Your task to perform on an android device: Search for sushi restaurants on Maps Image 0: 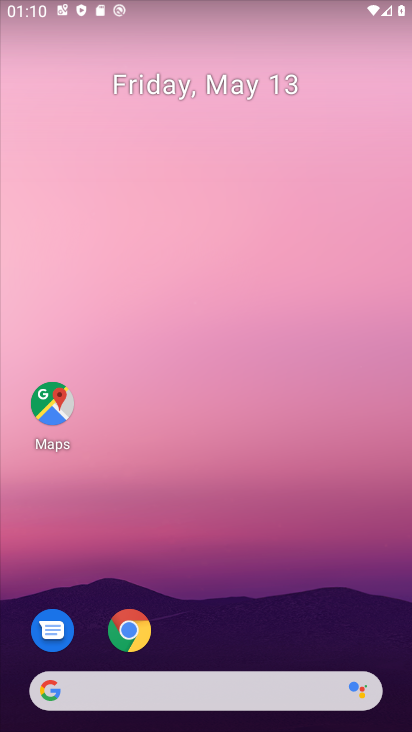
Step 0: drag from (230, 706) to (145, 254)
Your task to perform on an android device: Search for sushi restaurants on Maps Image 1: 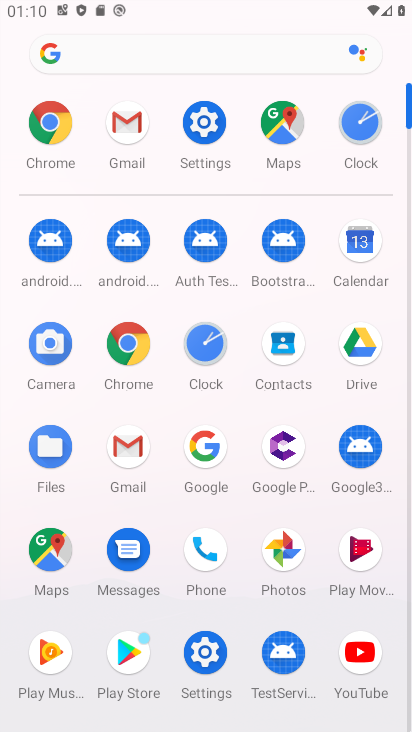
Step 1: click (267, 140)
Your task to perform on an android device: Search for sushi restaurants on Maps Image 2: 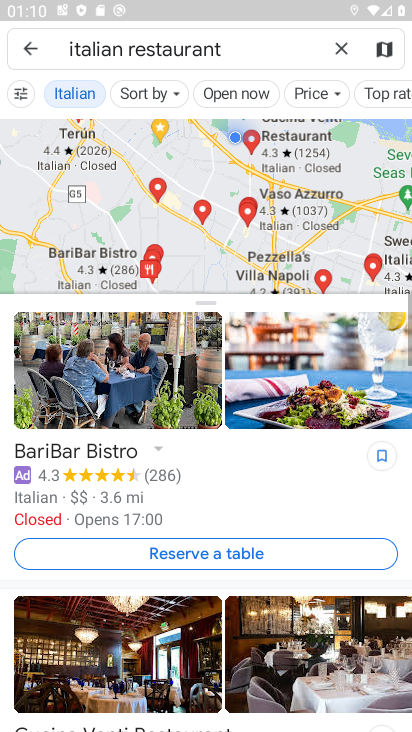
Step 2: click (343, 49)
Your task to perform on an android device: Search for sushi restaurants on Maps Image 3: 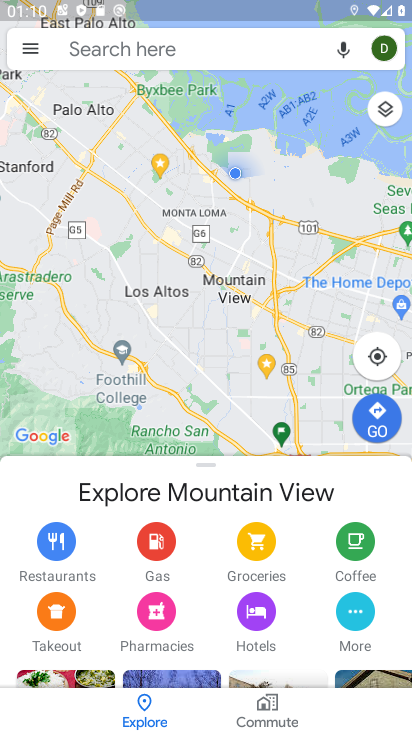
Step 3: click (162, 50)
Your task to perform on an android device: Search for sushi restaurants on Maps Image 4: 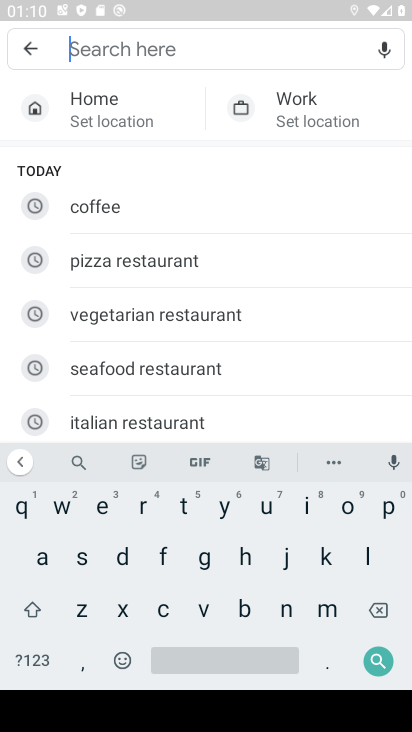
Step 4: click (83, 562)
Your task to perform on an android device: Search for sushi restaurants on Maps Image 5: 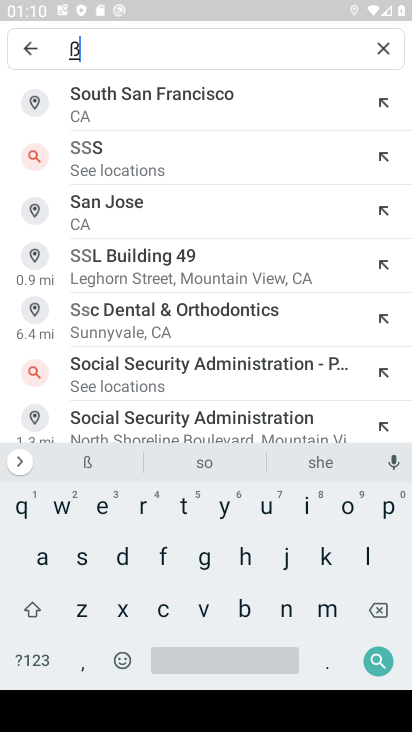
Step 5: click (272, 507)
Your task to perform on an android device: Search for sushi restaurants on Maps Image 6: 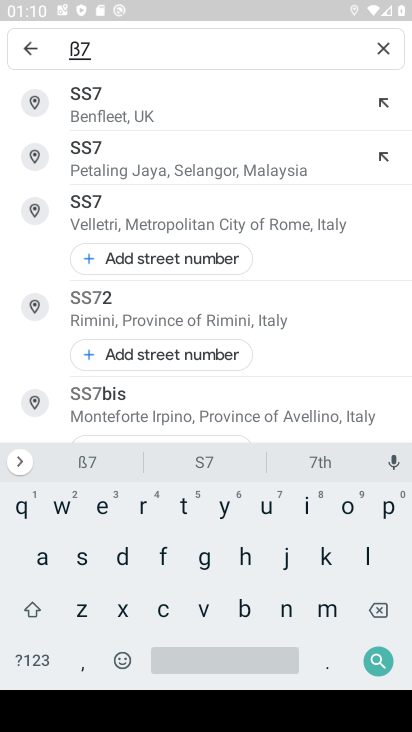
Step 6: click (383, 607)
Your task to perform on an android device: Search for sushi restaurants on Maps Image 7: 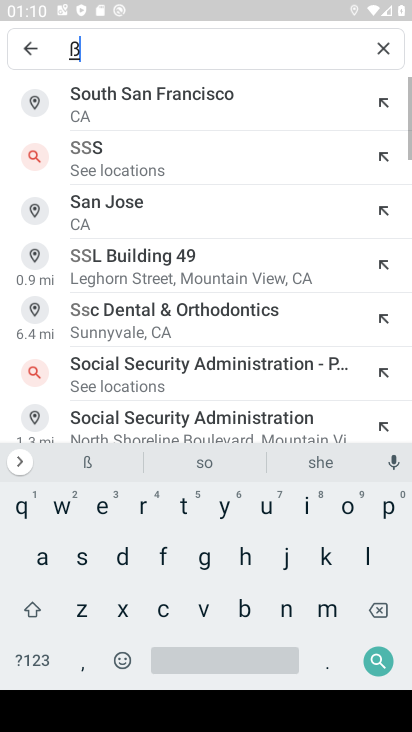
Step 7: click (383, 607)
Your task to perform on an android device: Search for sushi restaurants on Maps Image 8: 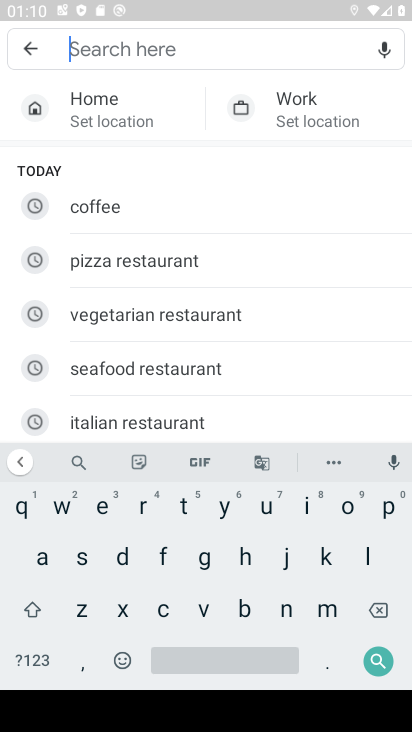
Step 8: click (76, 556)
Your task to perform on an android device: Search for sushi restaurants on Maps Image 9: 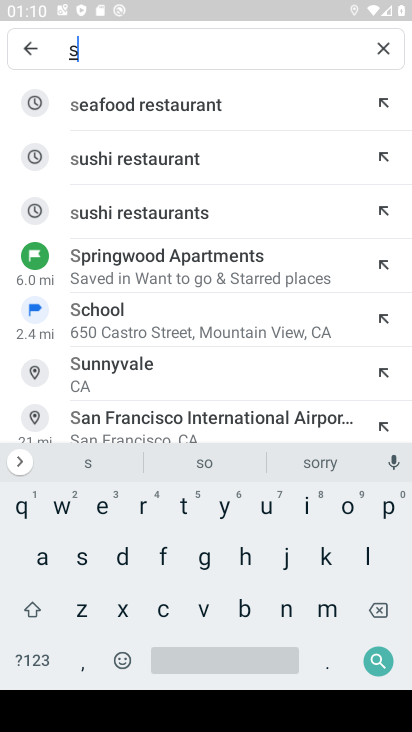
Step 9: click (219, 158)
Your task to perform on an android device: Search for sushi restaurants on Maps Image 10: 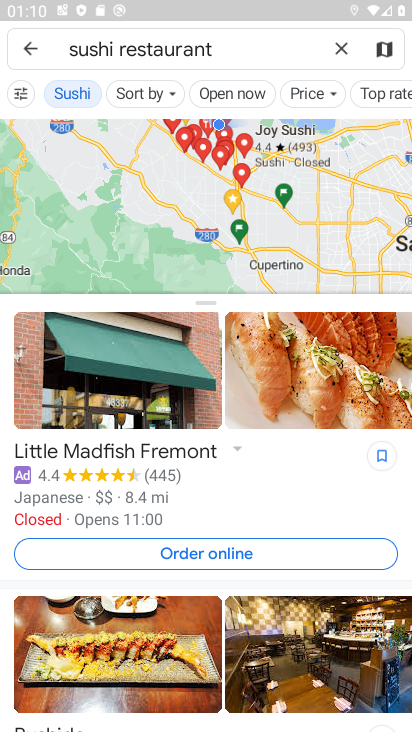
Step 10: click (161, 172)
Your task to perform on an android device: Search for sushi restaurants on Maps Image 11: 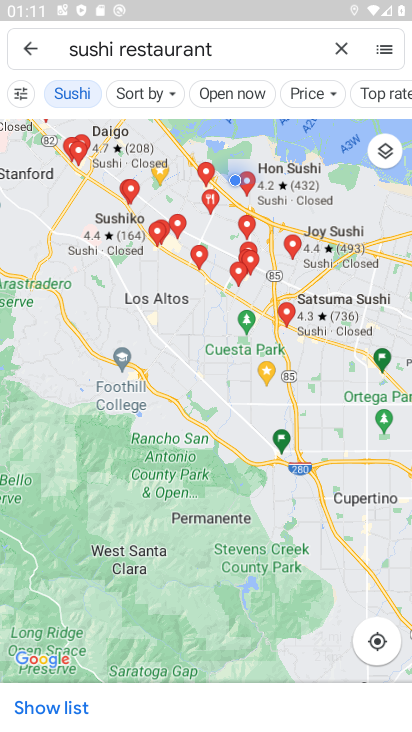
Step 11: task complete